Your task to perform on an android device: Open Amazon Image 0: 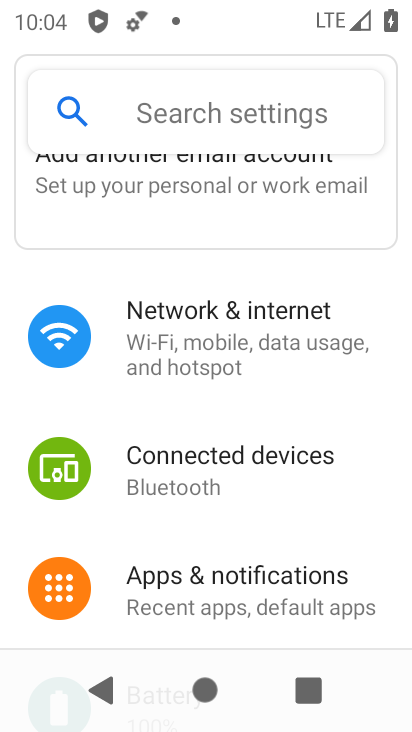
Step 0: press home button
Your task to perform on an android device: Open Amazon Image 1: 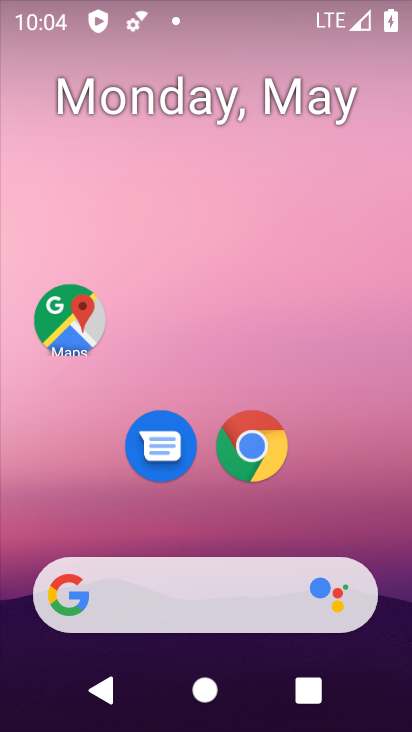
Step 1: click (247, 451)
Your task to perform on an android device: Open Amazon Image 2: 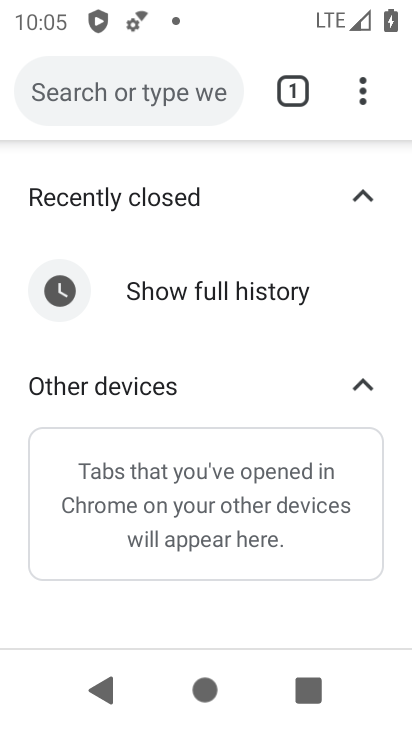
Step 2: click (302, 91)
Your task to perform on an android device: Open Amazon Image 3: 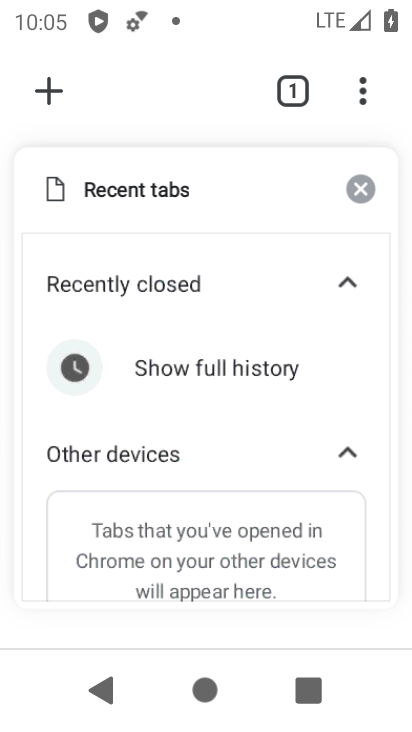
Step 3: click (368, 192)
Your task to perform on an android device: Open Amazon Image 4: 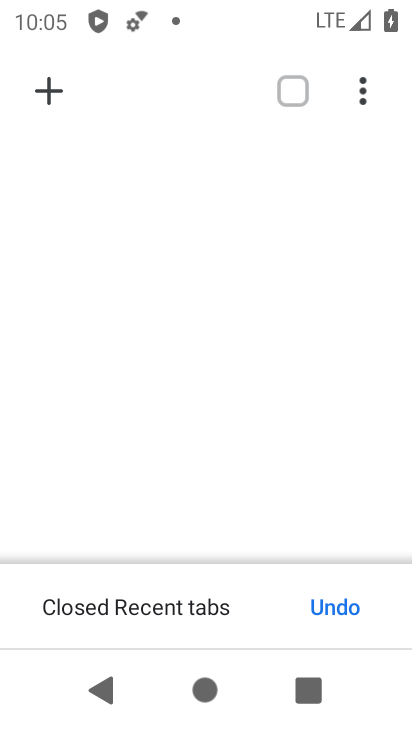
Step 4: click (44, 99)
Your task to perform on an android device: Open Amazon Image 5: 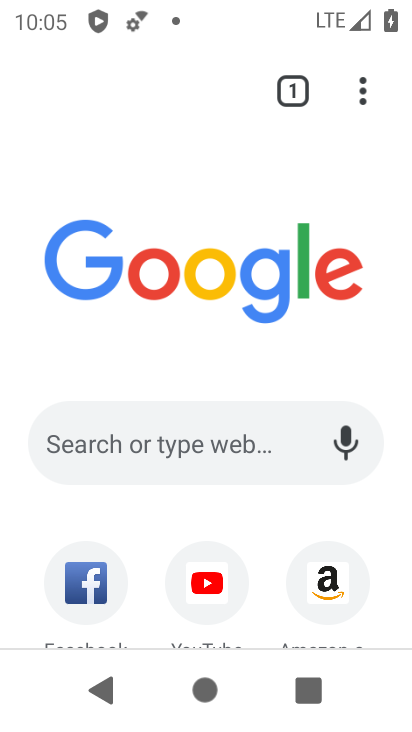
Step 5: click (343, 603)
Your task to perform on an android device: Open Amazon Image 6: 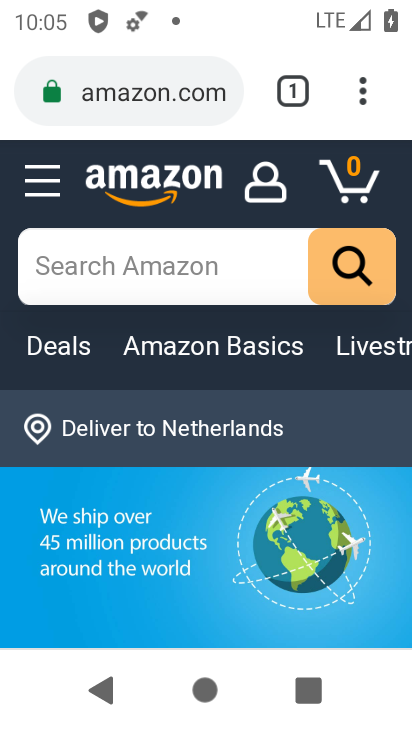
Step 6: task complete